Your task to perform on an android device: Open Chrome and go to settings Image 0: 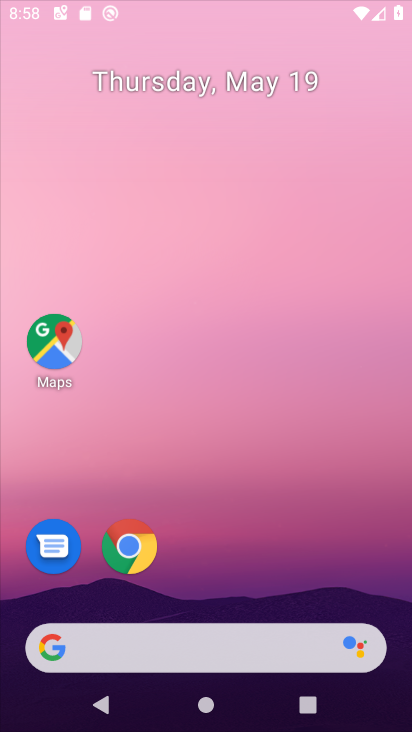
Step 0: click (227, 191)
Your task to perform on an android device: Open Chrome and go to settings Image 1: 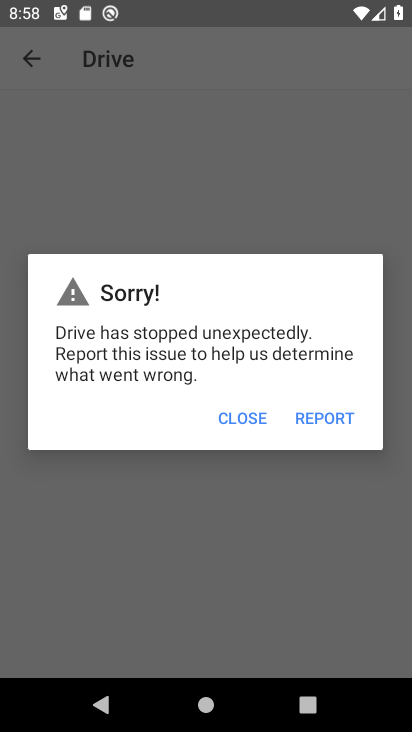
Step 1: click (236, 407)
Your task to perform on an android device: Open Chrome and go to settings Image 2: 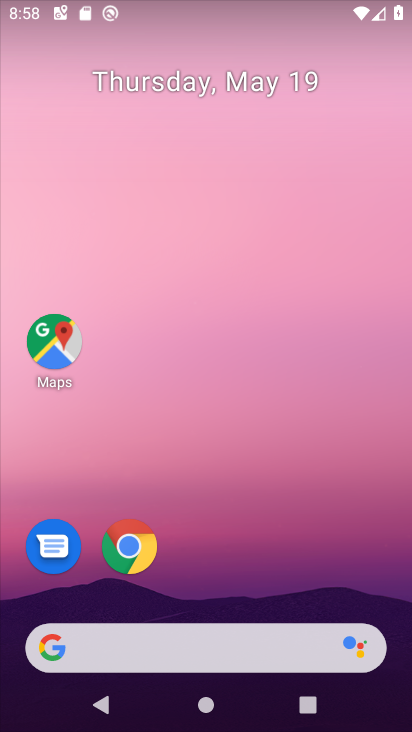
Step 2: drag from (274, 590) to (205, 60)
Your task to perform on an android device: Open Chrome and go to settings Image 3: 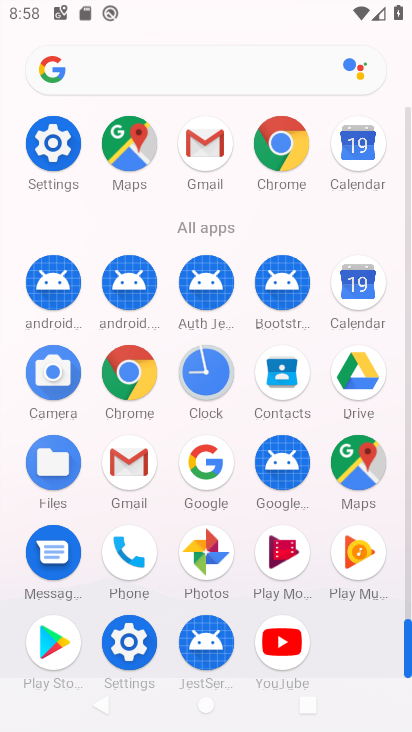
Step 3: click (57, 140)
Your task to perform on an android device: Open Chrome and go to settings Image 4: 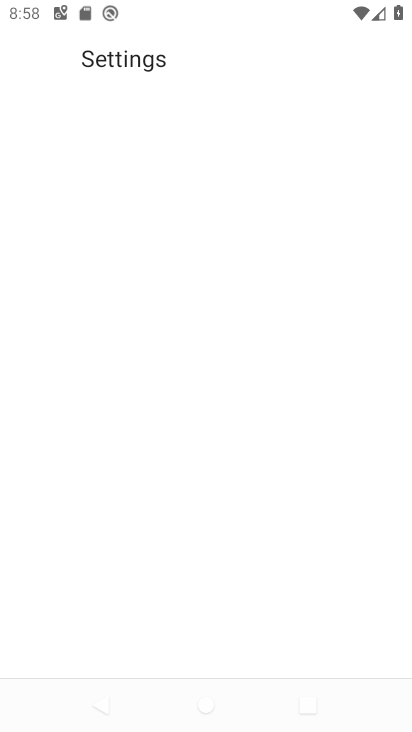
Step 4: click (57, 140)
Your task to perform on an android device: Open Chrome and go to settings Image 5: 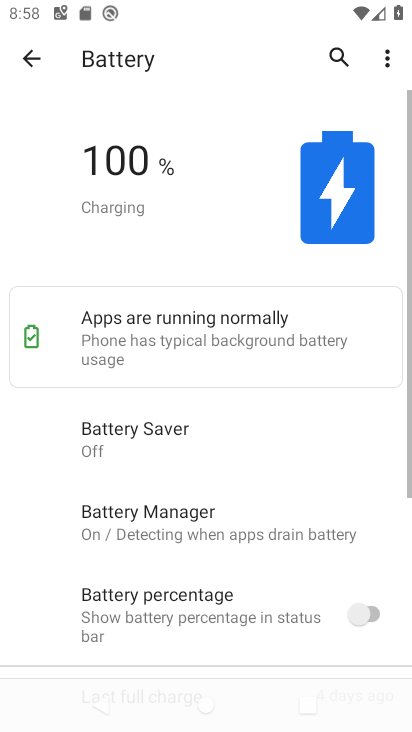
Step 5: press back button
Your task to perform on an android device: Open Chrome and go to settings Image 6: 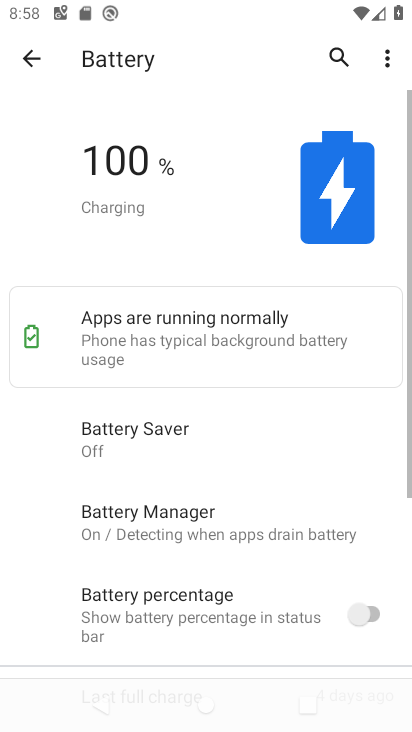
Step 6: press back button
Your task to perform on an android device: Open Chrome and go to settings Image 7: 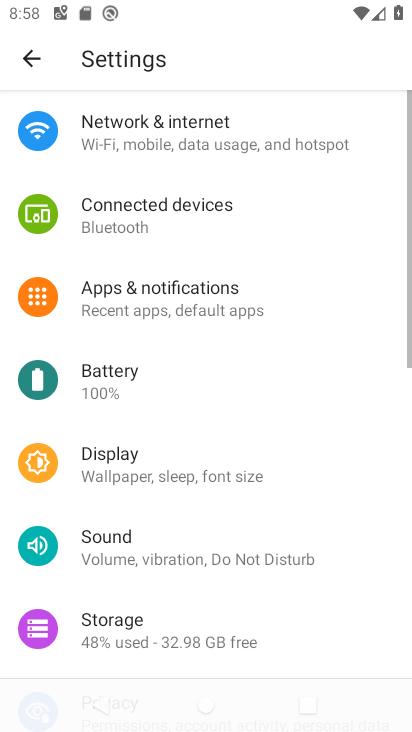
Step 7: press home button
Your task to perform on an android device: Open Chrome and go to settings Image 8: 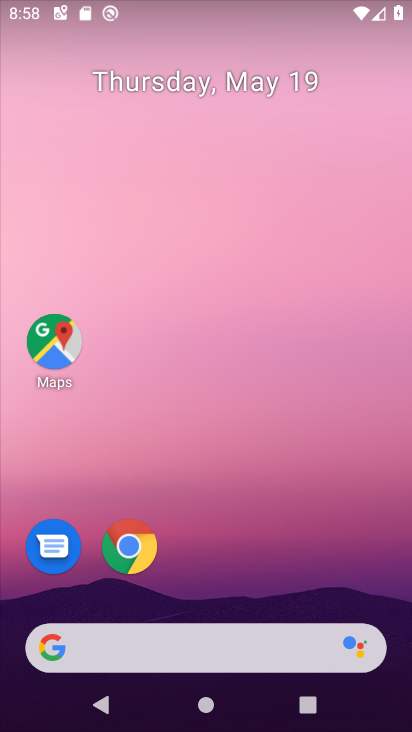
Step 8: drag from (272, 672) to (134, 80)
Your task to perform on an android device: Open Chrome and go to settings Image 9: 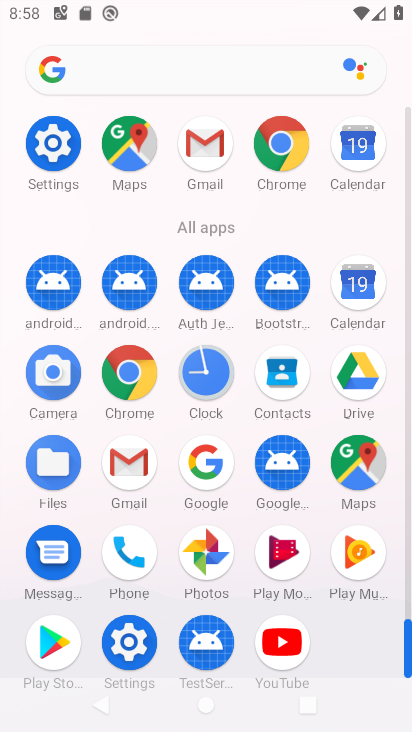
Step 9: click (276, 156)
Your task to perform on an android device: Open Chrome and go to settings Image 10: 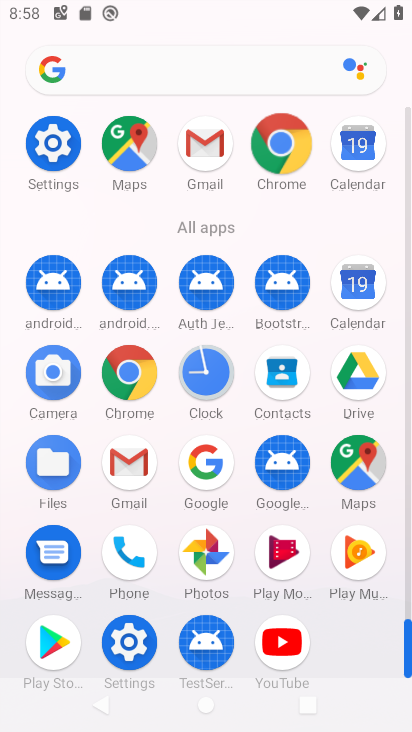
Step 10: click (276, 156)
Your task to perform on an android device: Open Chrome and go to settings Image 11: 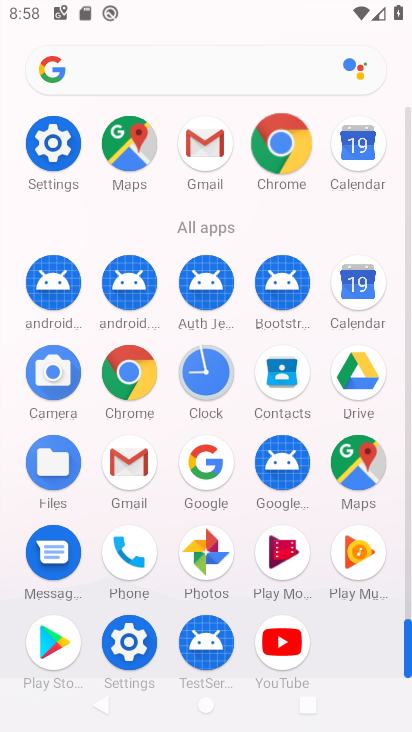
Step 11: click (279, 156)
Your task to perform on an android device: Open Chrome and go to settings Image 12: 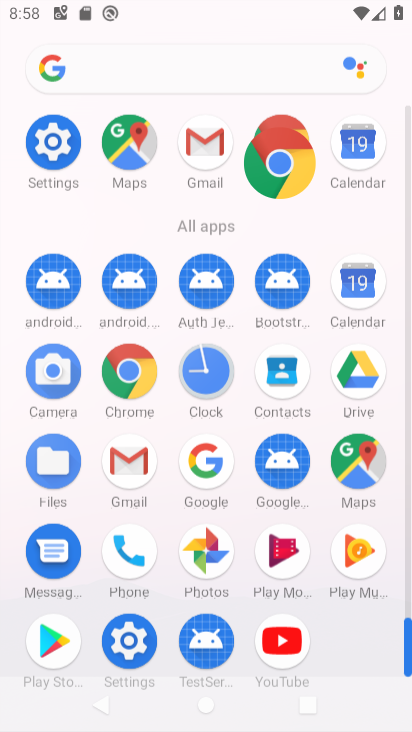
Step 12: click (280, 155)
Your task to perform on an android device: Open Chrome and go to settings Image 13: 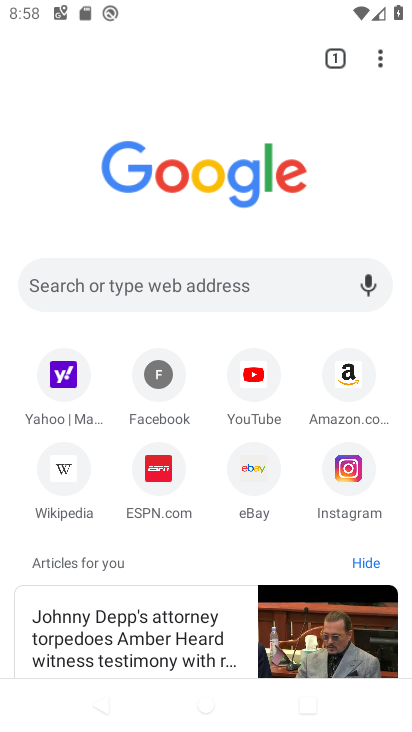
Step 13: click (280, 154)
Your task to perform on an android device: Open Chrome and go to settings Image 14: 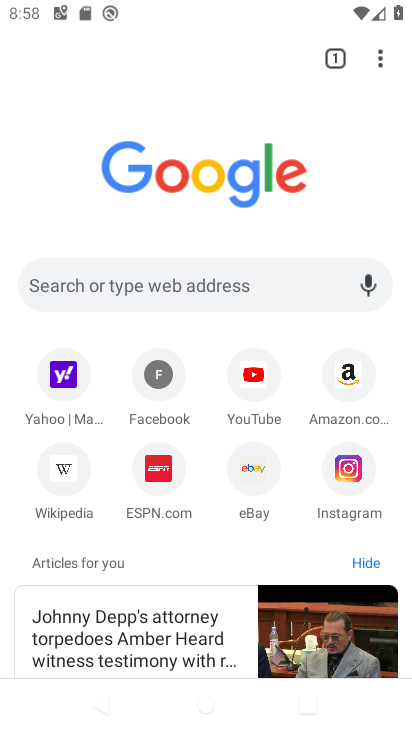
Step 14: drag from (381, 56) to (173, 488)
Your task to perform on an android device: Open Chrome and go to settings Image 15: 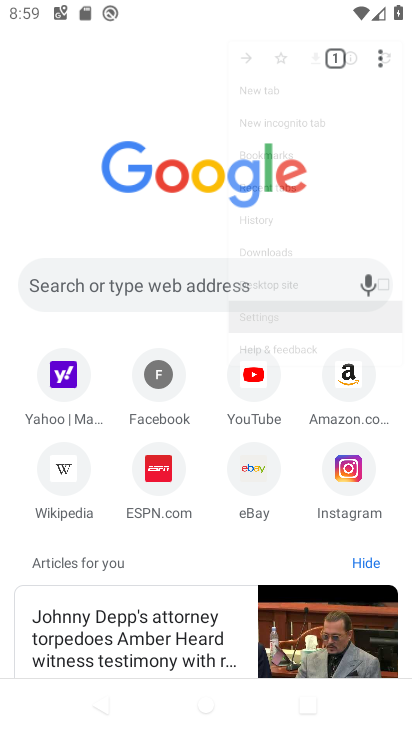
Step 15: click (175, 486)
Your task to perform on an android device: Open Chrome and go to settings Image 16: 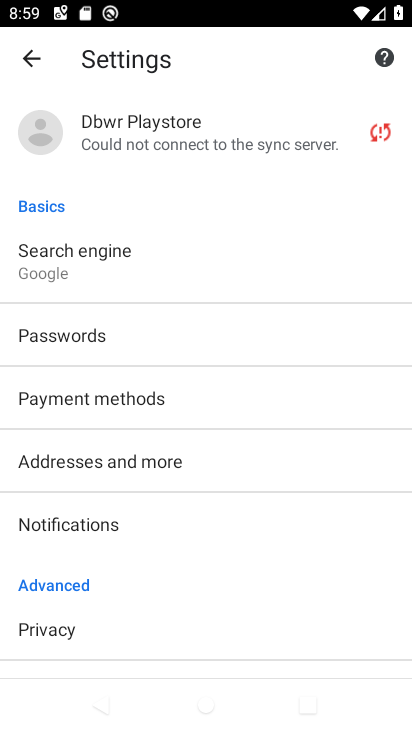
Step 16: drag from (147, 479) to (179, 158)
Your task to perform on an android device: Open Chrome and go to settings Image 17: 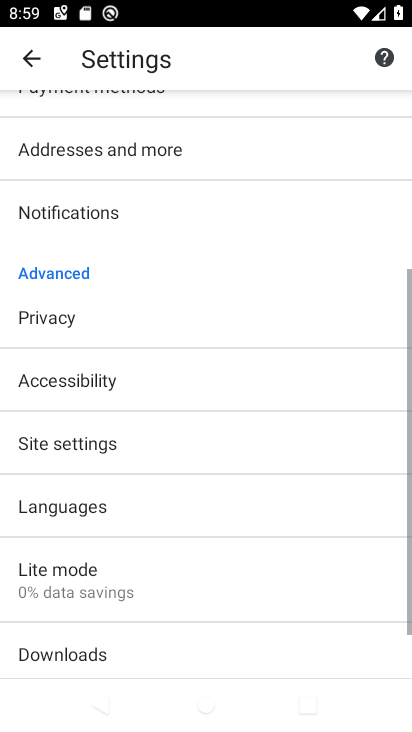
Step 17: drag from (136, 401) to (111, 95)
Your task to perform on an android device: Open Chrome and go to settings Image 18: 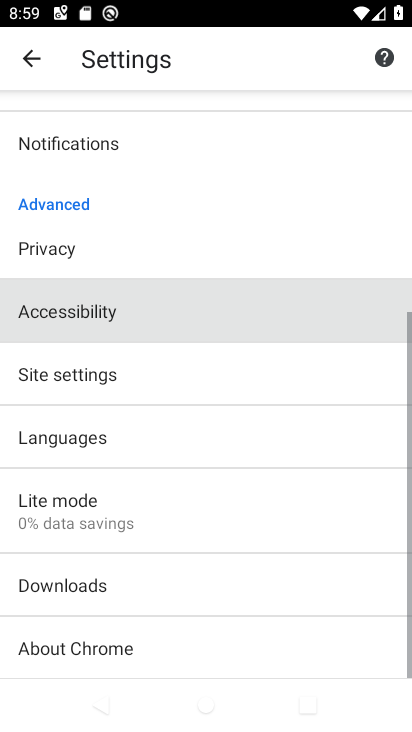
Step 18: drag from (102, 425) to (95, 111)
Your task to perform on an android device: Open Chrome and go to settings Image 19: 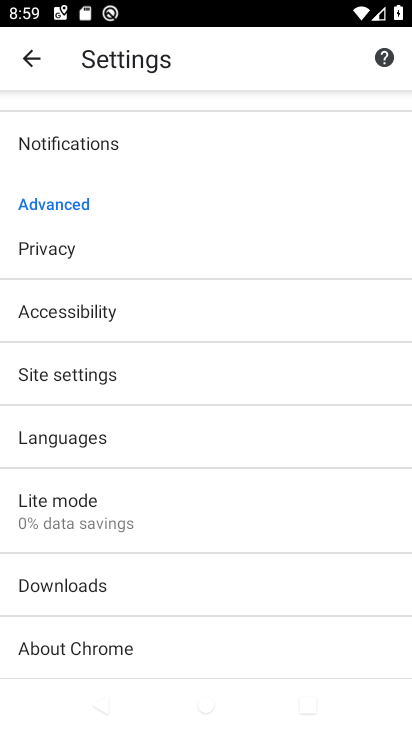
Step 19: click (61, 371)
Your task to perform on an android device: Open Chrome and go to settings Image 20: 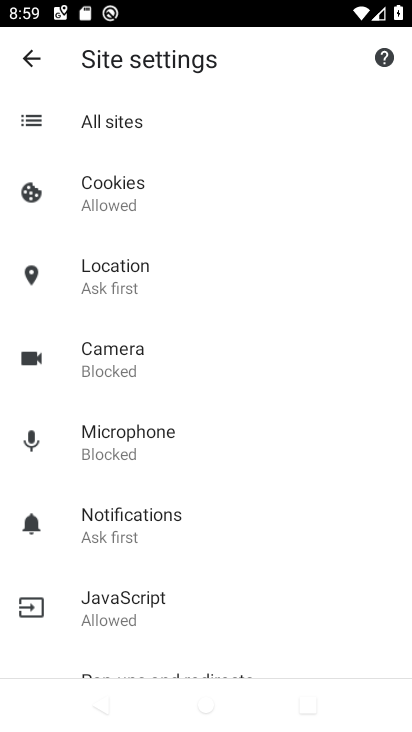
Step 20: task complete